Your task to perform on an android device: make emails show in primary in the gmail app Image 0: 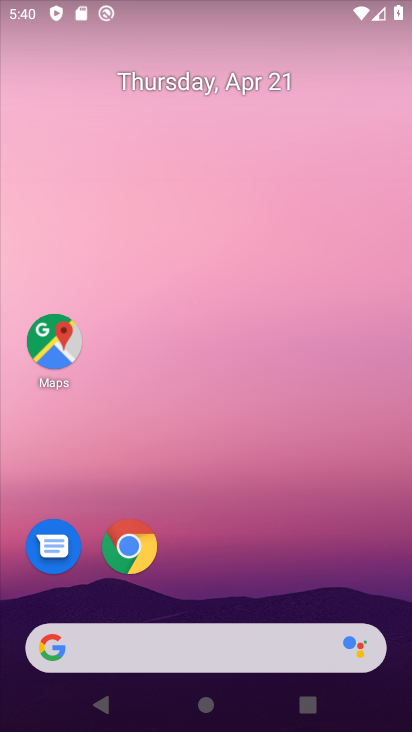
Step 0: drag from (289, 476) to (244, 114)
Your task to perform on an android device: make emails show in primary in the gmail app Image 1: 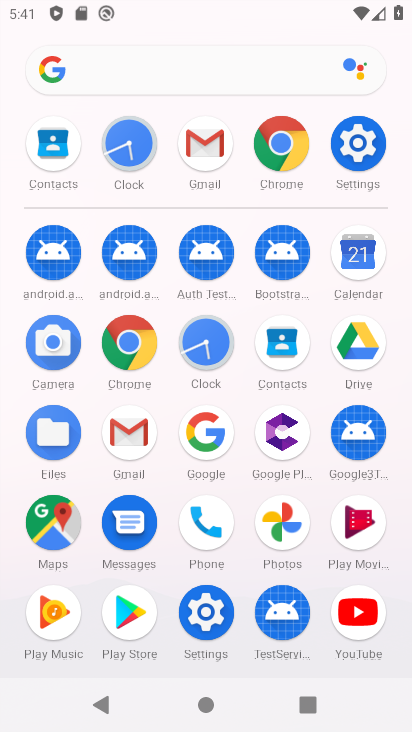
Step 1: click (201, 144)
Your task to perform on an android device: make emails show in primary in the gmail app Image 2: 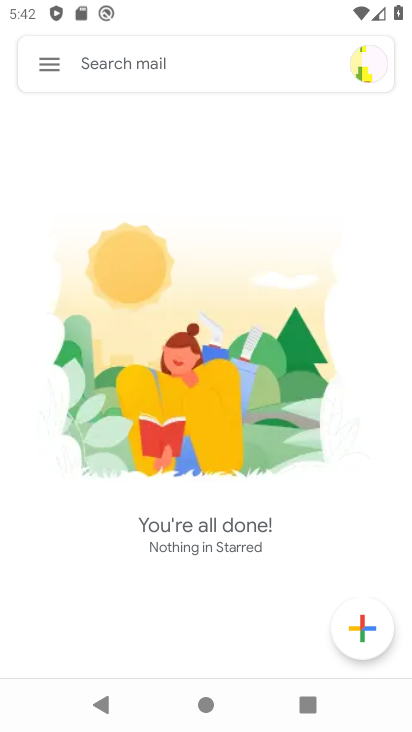
Step 2: click (54, 70)
Your task to perform on an android device: make emails show in primary in the gmail app Image 3: 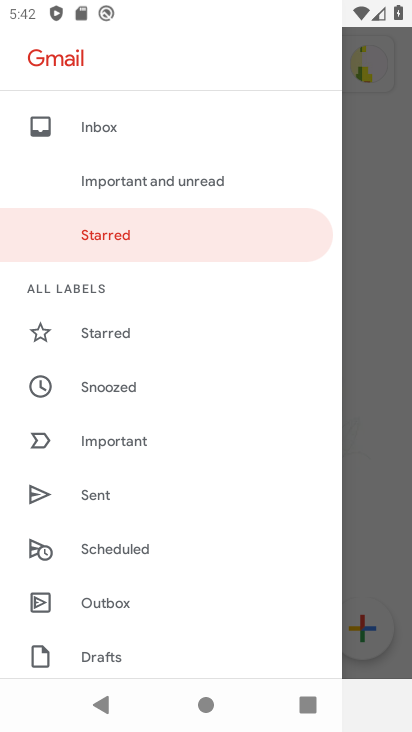
Step 3: drag from (207, 625) to (196, 180)
Your task to perform on an android device: make emails show in primary in the gmail app Image 4: 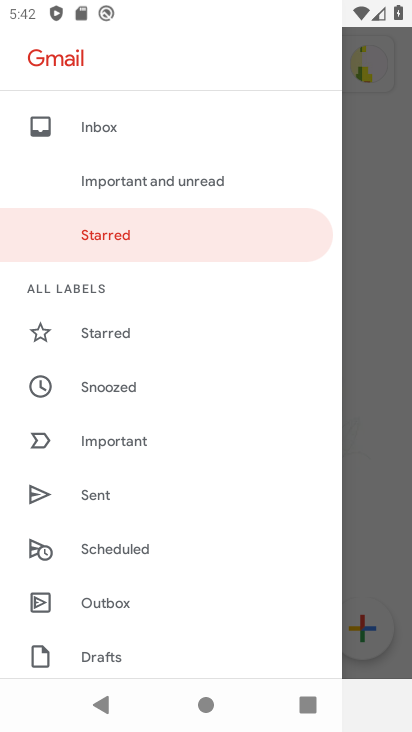
Step 4: drag from (204, 606) to (216, 189)
Your task to perform on an android device: make emails show in primary in the gmail app Image 5: 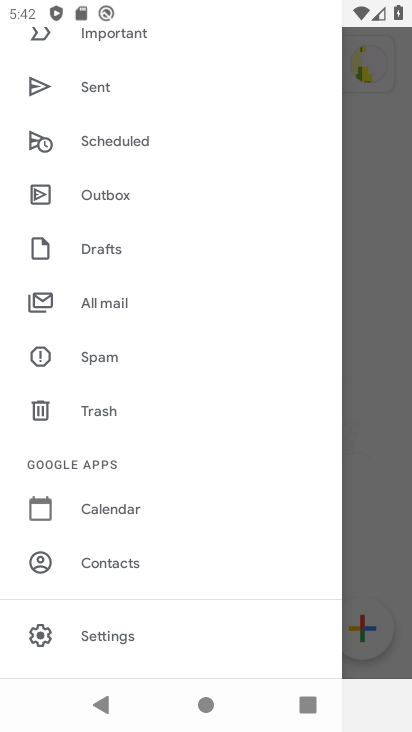
Step 5: click (142, 630)
Your task to perform on an android device: make emails show in primary in the gmail app Image 6: 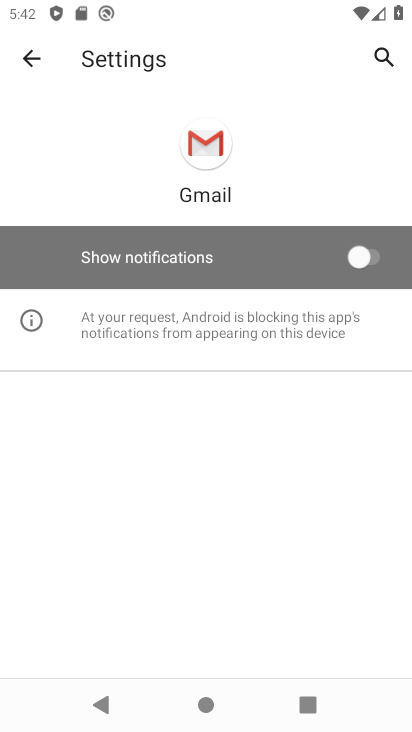
Step 6: click (32, 56)
Your task to perform on an android device: make emails show in primary in the gmail app Image 7: 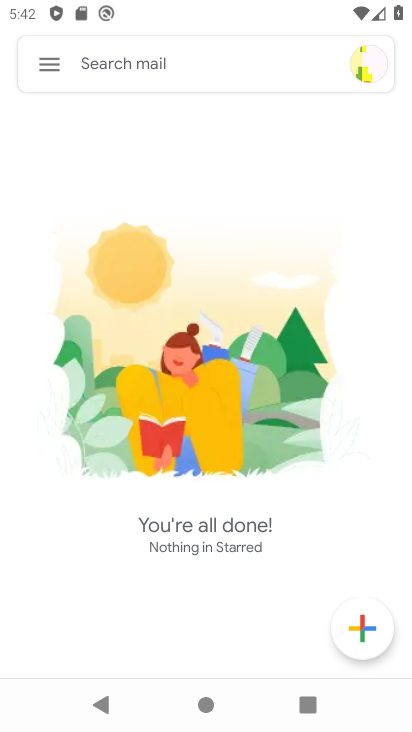
Step 7: click (57, 71)
Your task to perform on an android device: make emails show in primary in the gmail app Image 8: 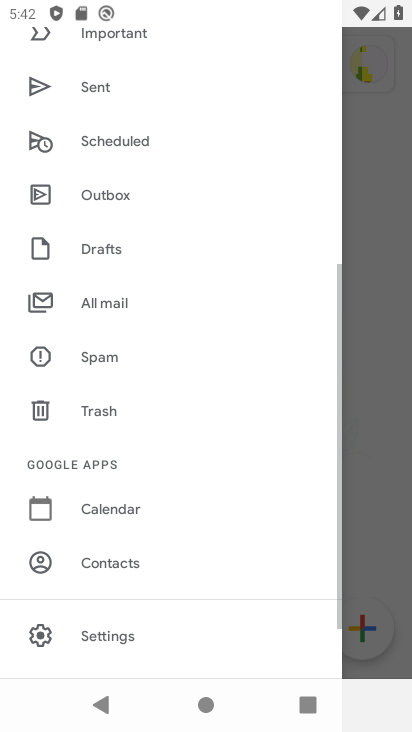
Step 8: click (149, 641)
Your task to perform on an android device: make emails show in primary in the gmail app Image 9: 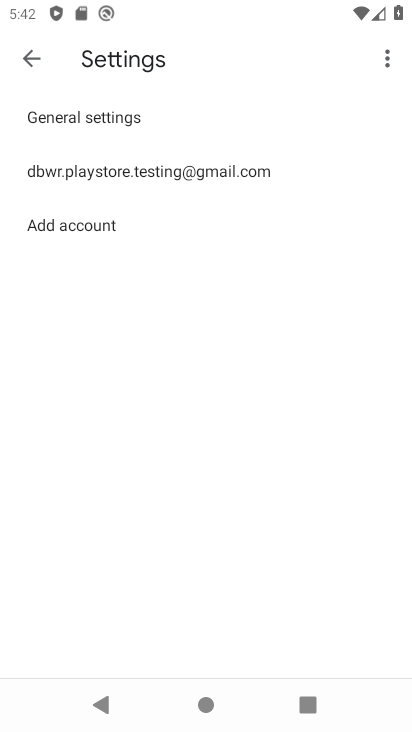
Step 9: click (115, 172)
Your task to perform on an android device: make emails show in primary in the gmail app Image 10: 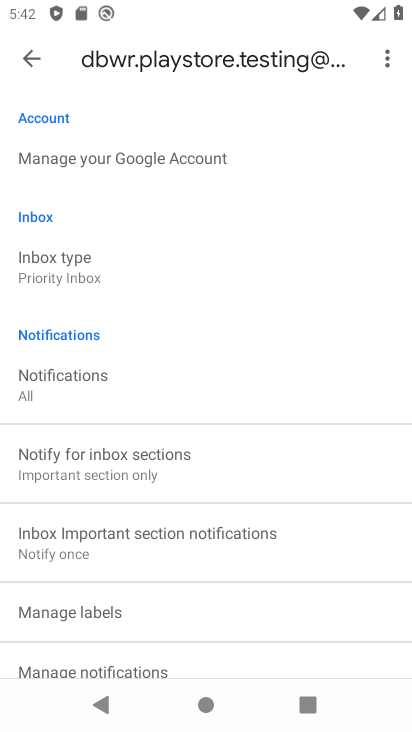
Step 10: click (65, 270)
Your task to perform on an android device: make emails show in primary in the gmail app Image 11: 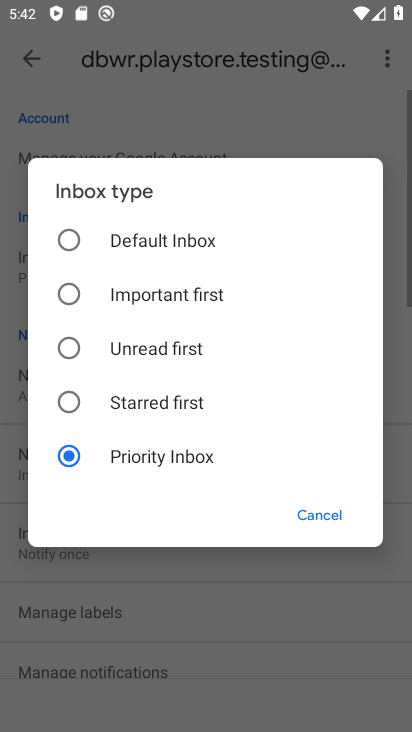
Step 11: click (72, 236)
Your task to perform on an android device: make emails show in primary in the gmail app Image 12: 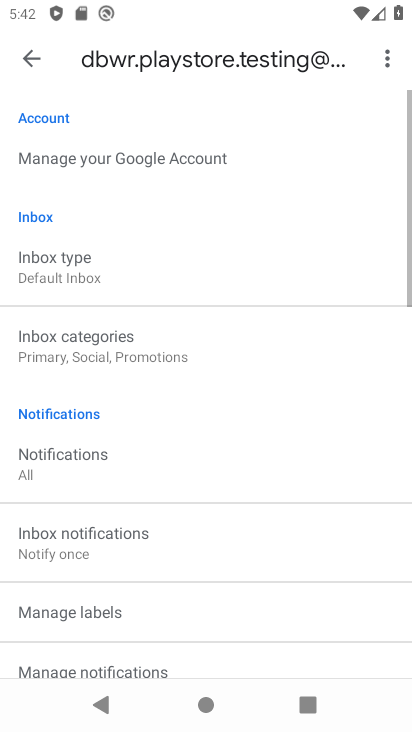
Step 12: click (62, 337)
Your task to perform on an android device: make emails show in primary in the gmail app Image 13: 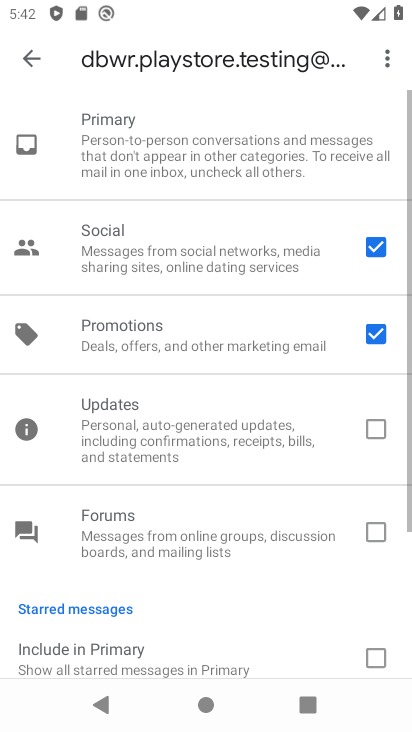
Step 13: click (355, 335)
Your task to perform on an android device: make emails show in primary in the gmail app Image 14: 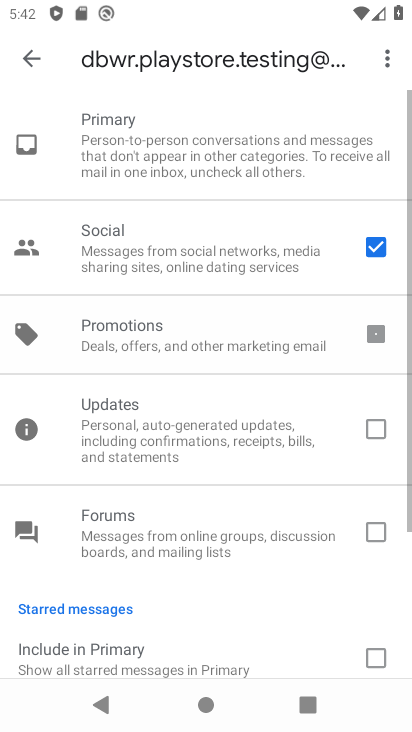
Step 14: click (372, 249)
Your task to perform on an android device: make emails show in primary in the gmail app Image 15: 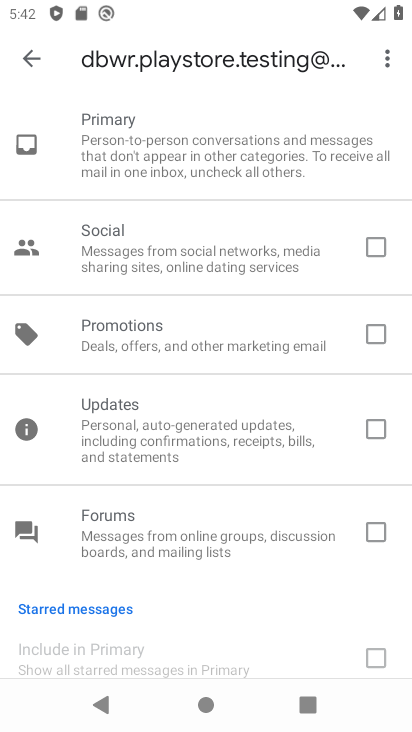
Step 15: task complete